Your task to perform on an android device: Open calendar and show me the fourth week of next month Image 0: 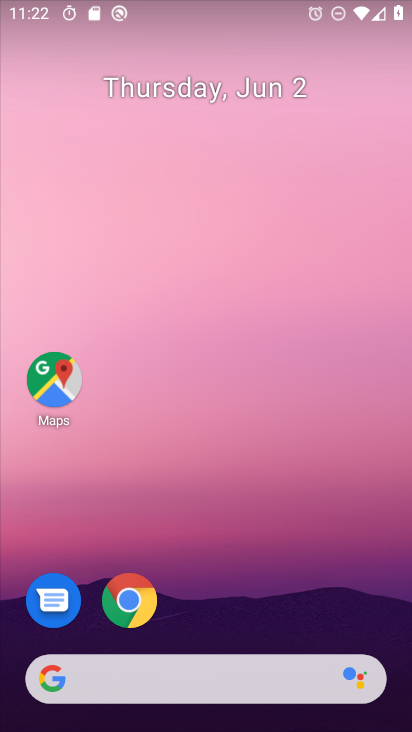
Step 0: drag from (226, 442) to (213, 101)
Your task to perform on an android device: Open calendar and show me the fourth week of next month Image 1: 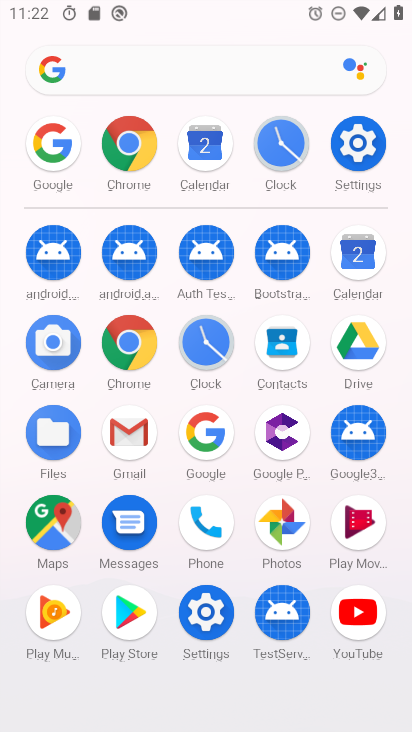
Step 1: click (354, 268)
Your task to perform on an android device: Open calendar and show me the fourth week of next month Image 2: 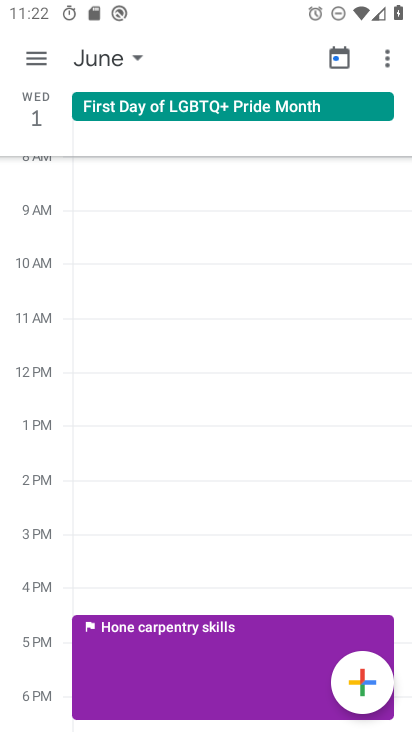
Step 2: click (126, 48)
Your task to perform on an android device: Open calendar and show me the fourth week of next month Image 3: 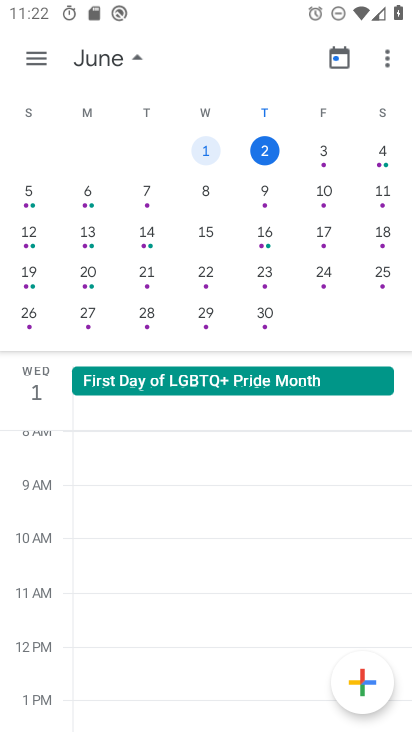
Step 3: drag from (369, 331) to (32, 290)
Your task to perform on an android device: Open calendar and show me the fourth week of next month Image 4: 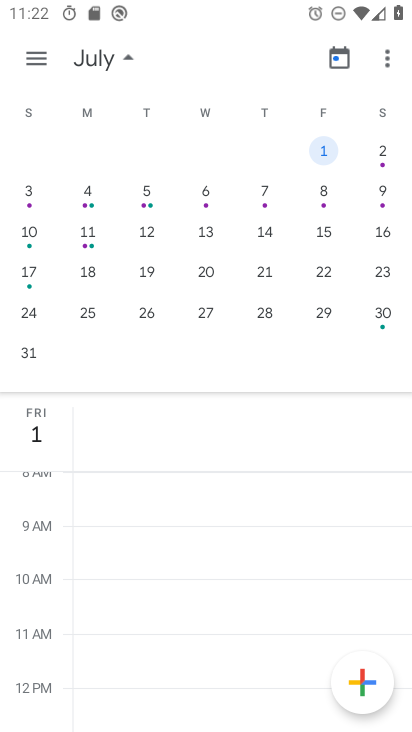
Step 4: click (267, 275)
Your task to perform on an android device: Open calendar and show me the fourth week of next month Image 5: 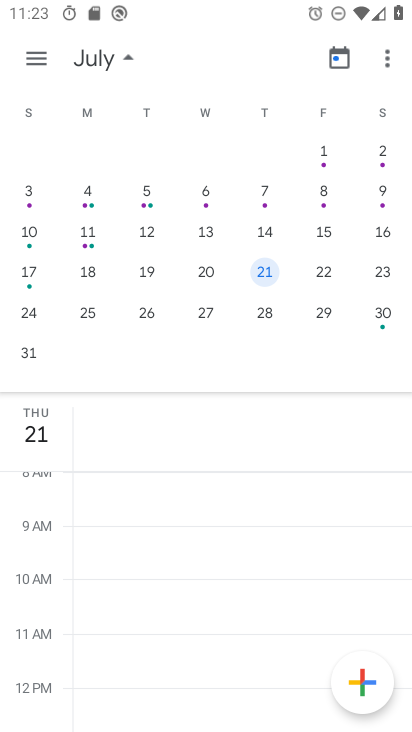
Step 5: click (265, 311)
Your task to perform on an android device: Open calendar and show me the fourth week of next month Image 6: 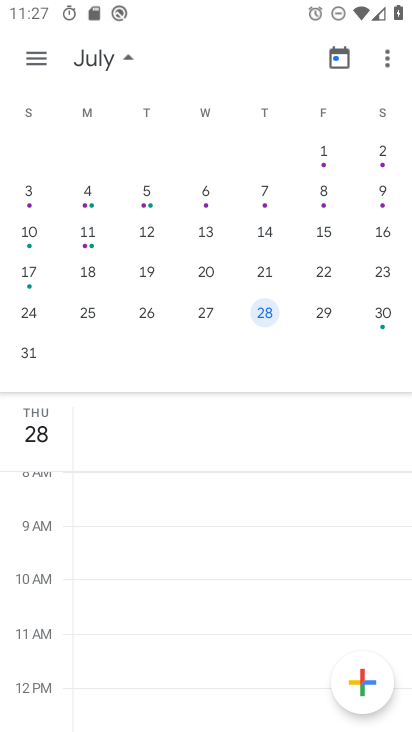
Step 6: task complete